Your task to perform on an android device: Open Google Maps Image 0: 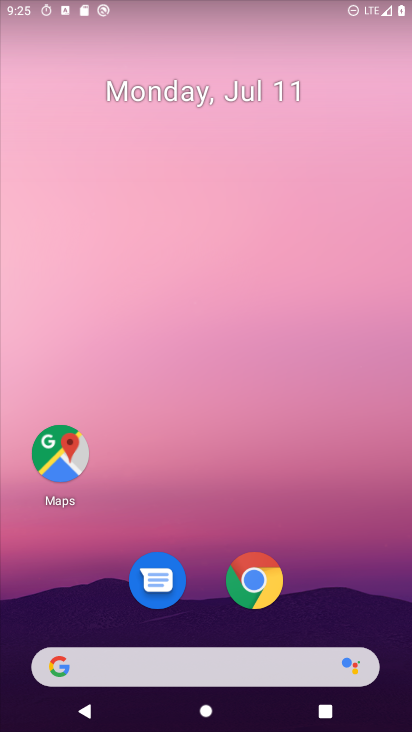
Step 0: click (83, 469)
Your task to perform on an android device: Open Google Maps Image 1: 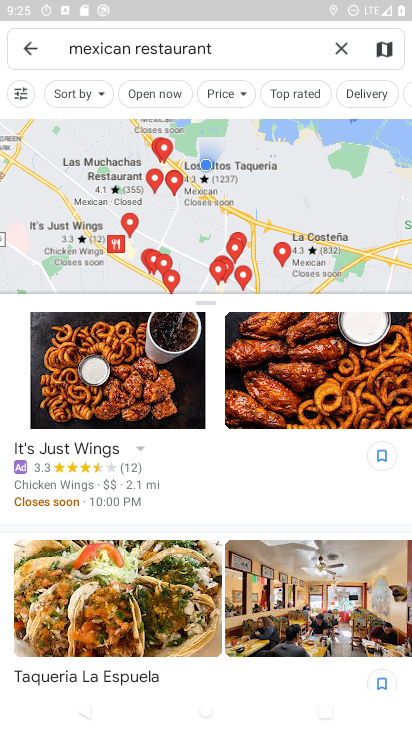
Step 1: click (340, 38)
Your task to perform on an android device: Open Google Maps Image 2: 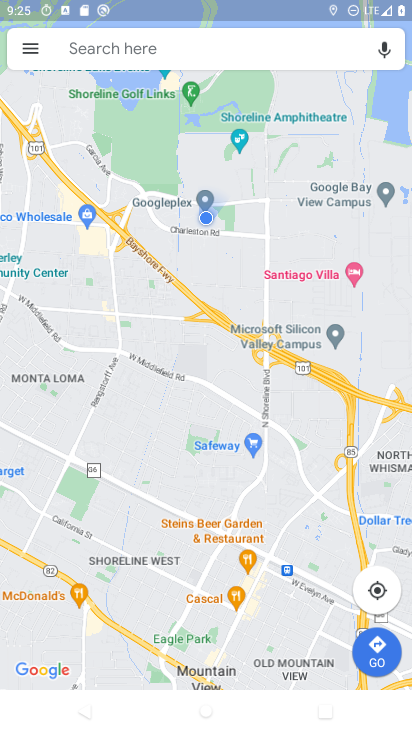
Step 2: task complete